Your task to perform on an android device: Open calendar and show me the first week of next month Image 0: 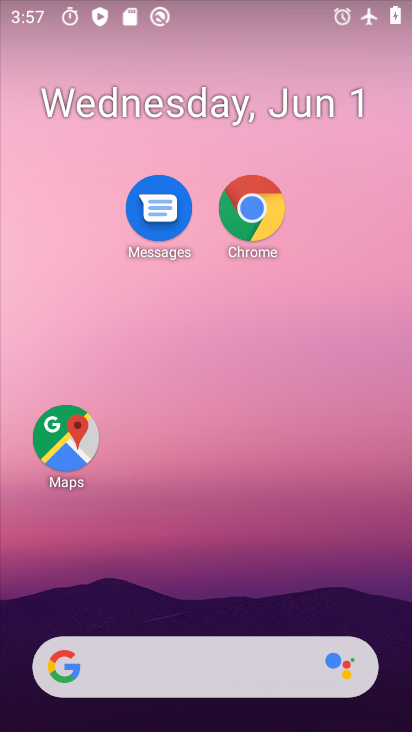
Step 0: drag from (201, 621) to (201, 255)
Your task to perform on an android device: Open calendar and show me the first week of next month Image 1: 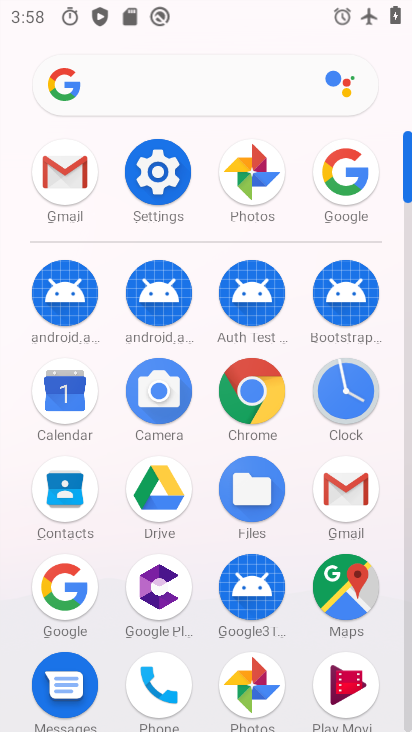
Step 1: click (76, 407)
Your task to perform on an android device: Open calendar and show me the first week of next month Image 2: 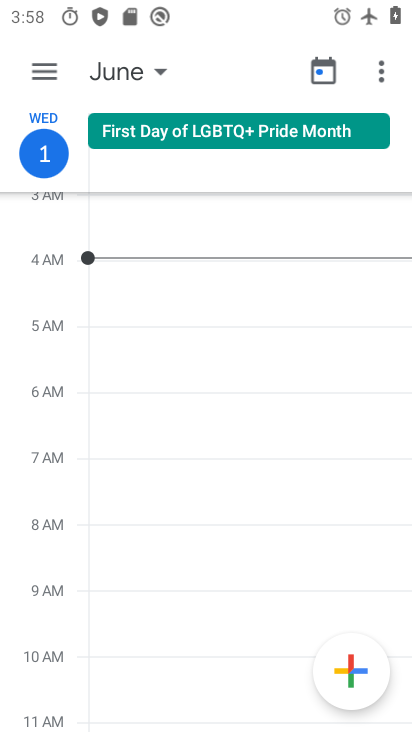
Step 2: click (162, 69)
Your task to perform on an android device: Open calendar and show me the first week of next month Image 3: 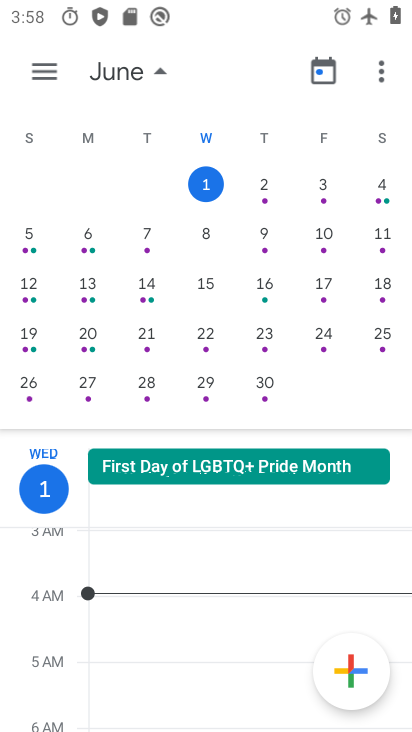
Step 3: task complete